Your task to perform on an android device: Go to accessibility settings Image 0: 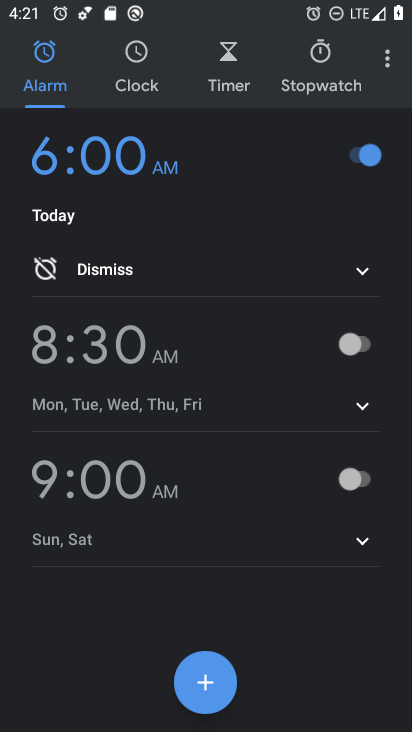
Step 0: press home button
Your task to perform on an android device: Go to accessibility settings Image 1: 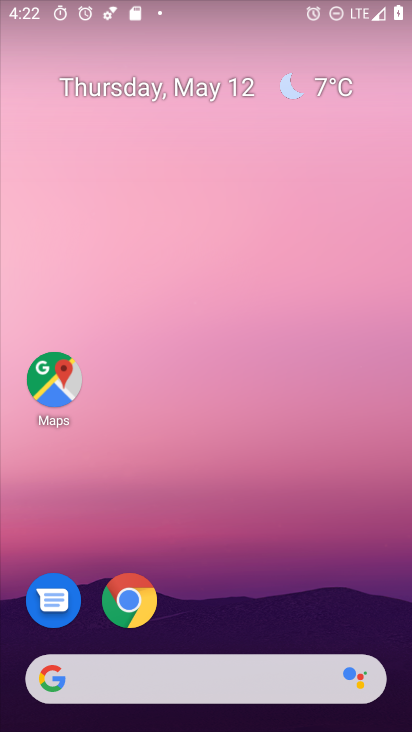
Step 1: drag from (185, 728) to (166, 249)
Your task to perform on an android device: Go to accessibility settings Image 2: 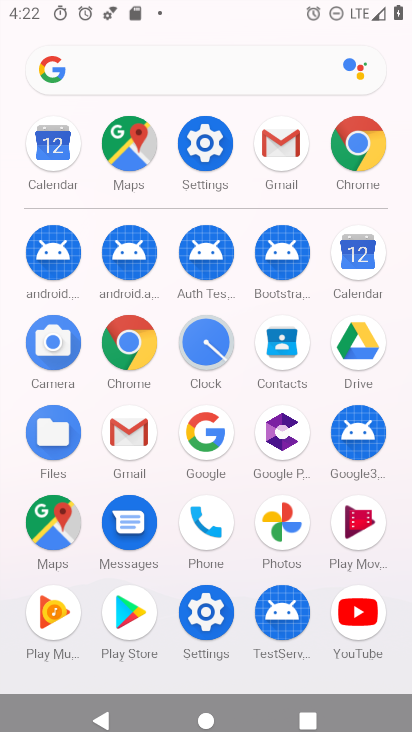
Step 2: click (204, 146)
Your task to perform on an android device: Go to accessibility settings Image 3: 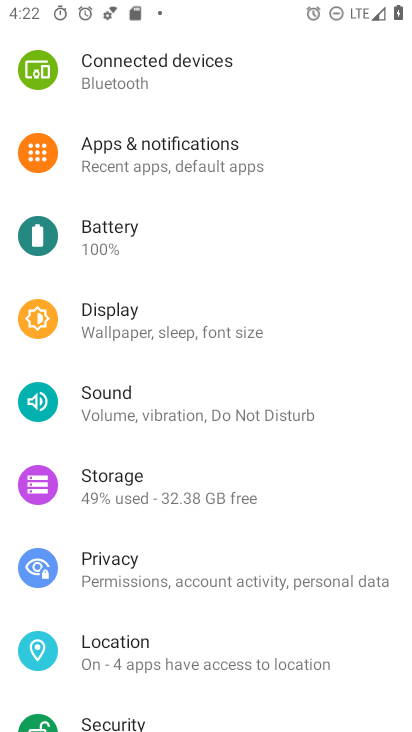
Step 3: drag from (200, 691) to (228, 232)
Your task to perform on an android device: Go to accessibility settings Image 4: 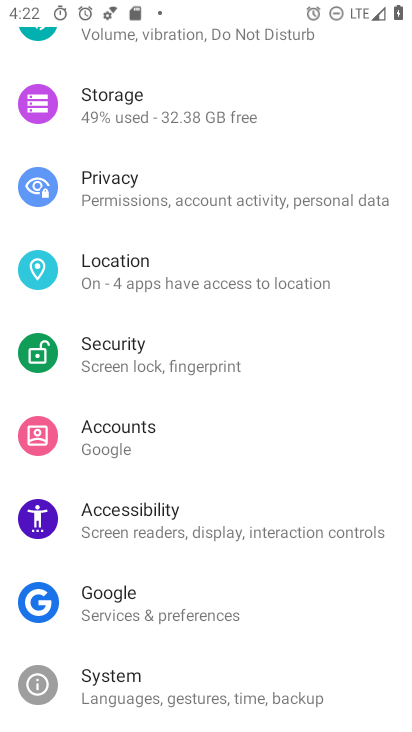
Step 4: click (155, 515)
Your task to perform on an android device: Go to accessibility settings Image 5: 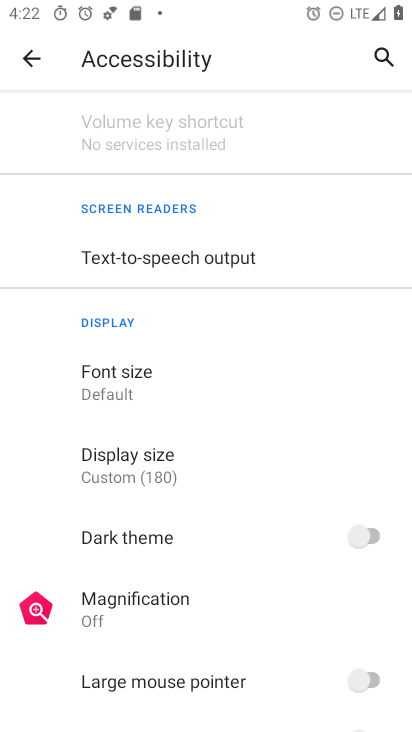
Step 5: task complete